Your task to perform on an android device: delete location history Image 0: 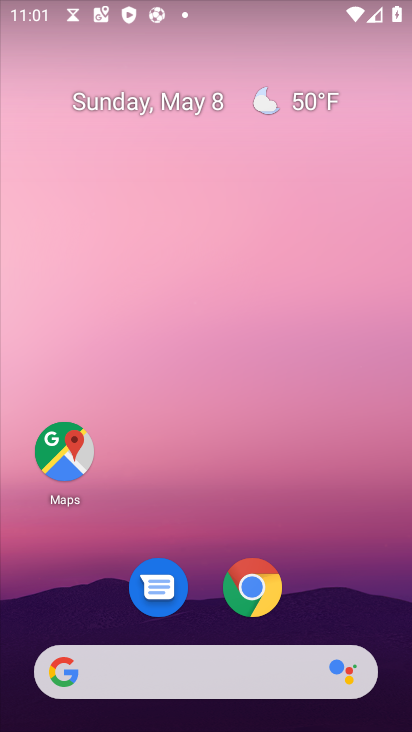
Step 0: click (88, 454)
Your task to perform on an android device: delete location history Image 1: 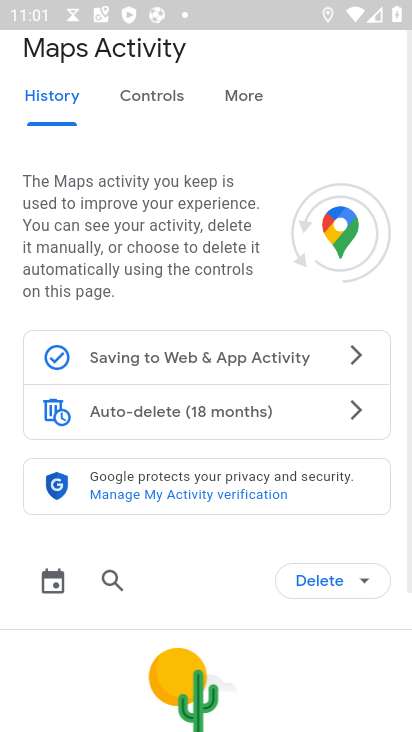
Step 1: task complete